Your task to perform on an android device: Go to Maps Image 0: 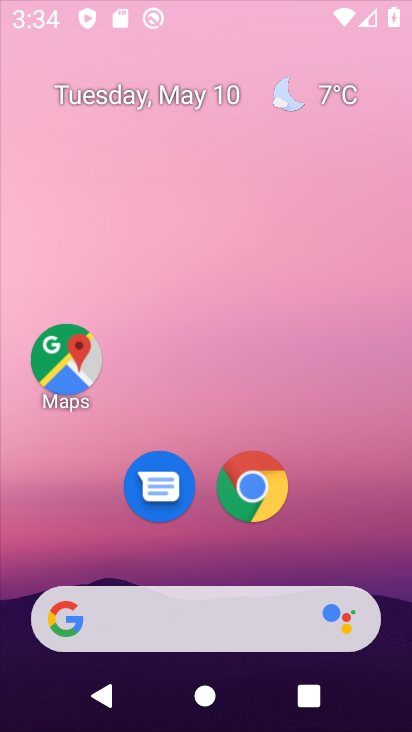
Step 0: drag from (293, 43) to (5, 54)
Your task to perform on an android device: Go to Maps Image 1: 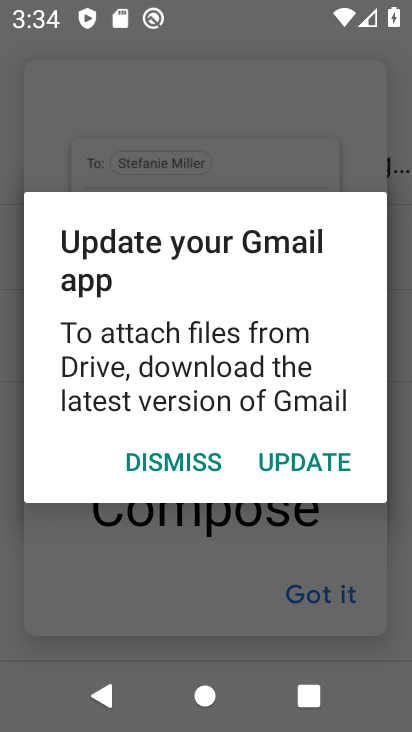
Step 1: press back button
Your task to perform on an android device: Go to Maps Image 2: 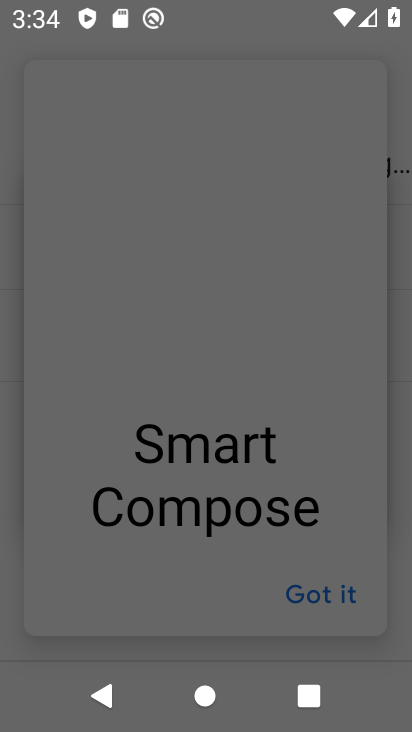
Step 2: press back button
Your task to perform on an android device: Go to Maps Image 3: 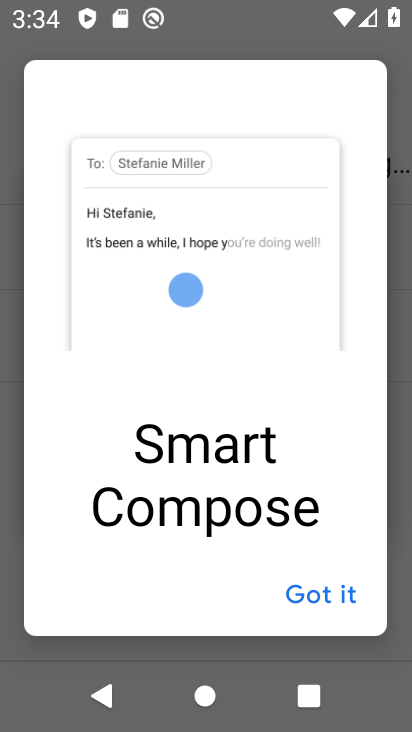
Step 3: press home button
Your task to perform on an android device: Go to Maps Image 4: 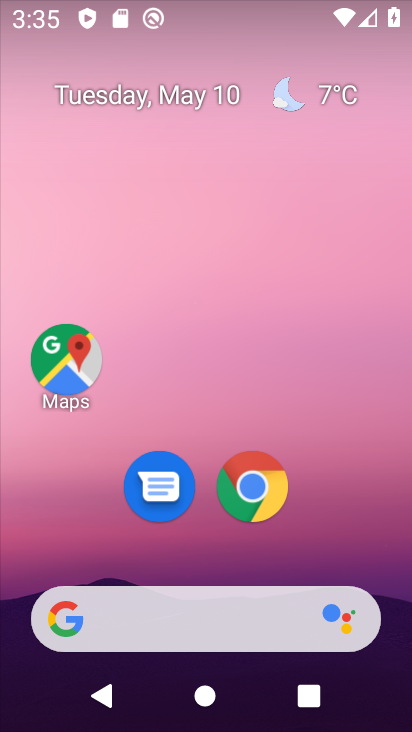
Step 4: click (57, 352)
Your task to perform on an android device: Go to Maps Image 5: 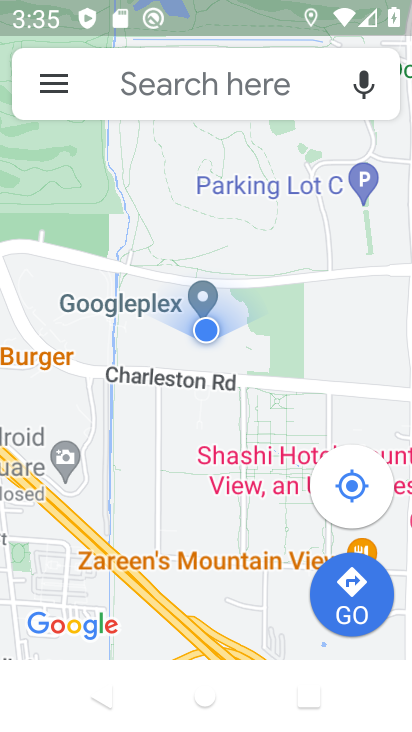
Step 5: task complete